Your task to perform on an android device: choose inbox layout in the gmail app Image 0: 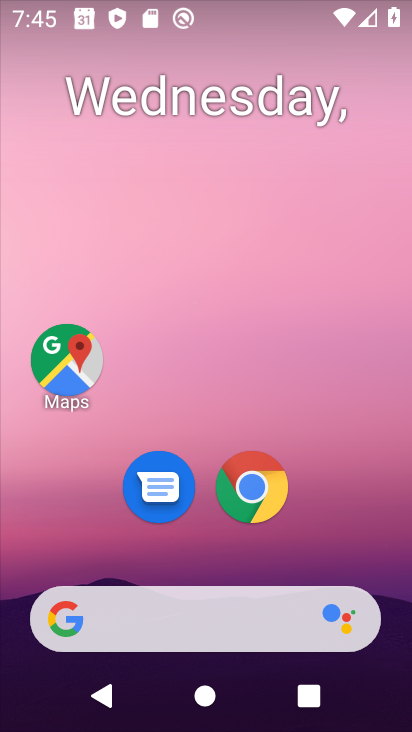
Step 0: drag from (346, 588) to (264, 21)
Your task to perform on an android device: choose inbox layout in the gmail app Image 1: 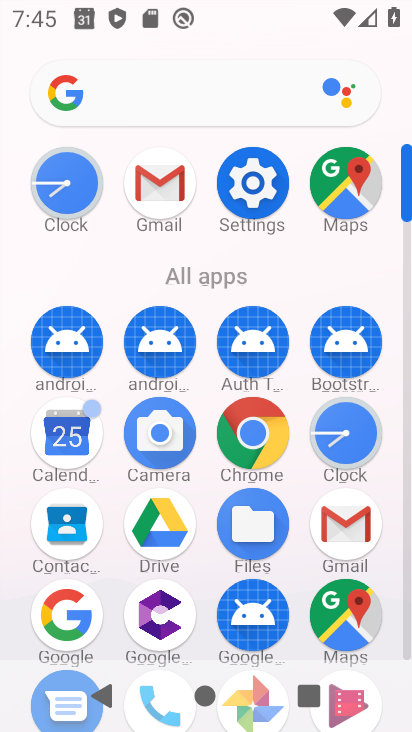
Step 1: click (157, 174)
Your task to perform on an android device: choose inbox layout in the gmail app Image 2: 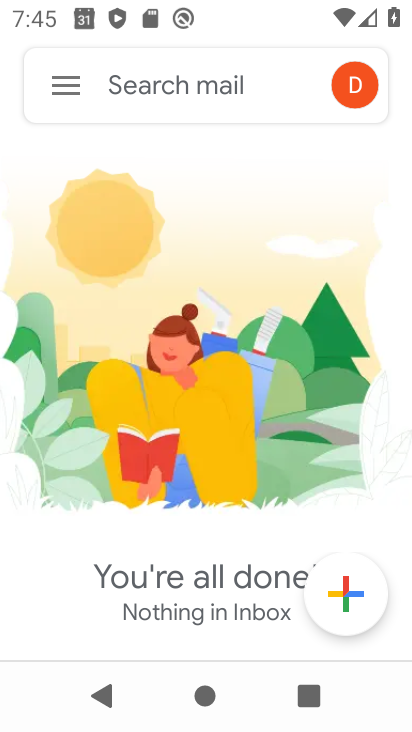
Step 2: click (61, 85)
Your task to perform on an android device: choose inbox layout in the gmail app Image 3: 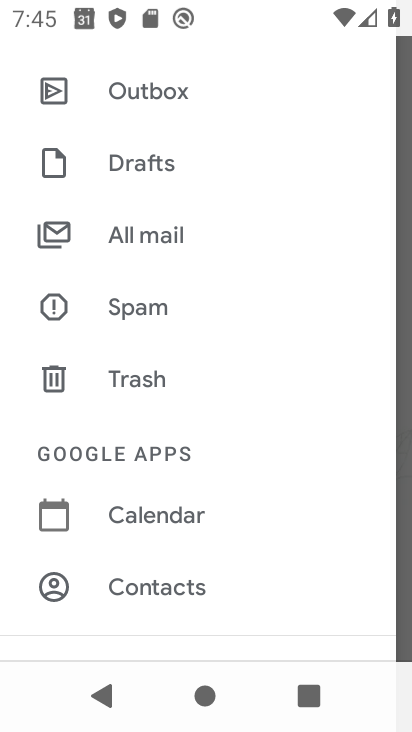
Step 3: drag from (221, 566) to (230, 69)
Your task to perform on an android device: choose inbox layout in the gmail app Image 4: 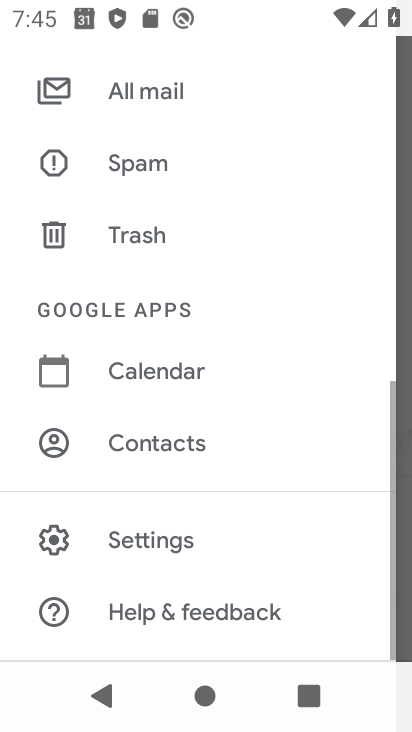
Step 4: click (158, 540)
Your task to perform on an android device: choose inbox layout in the gmail app Image 5: 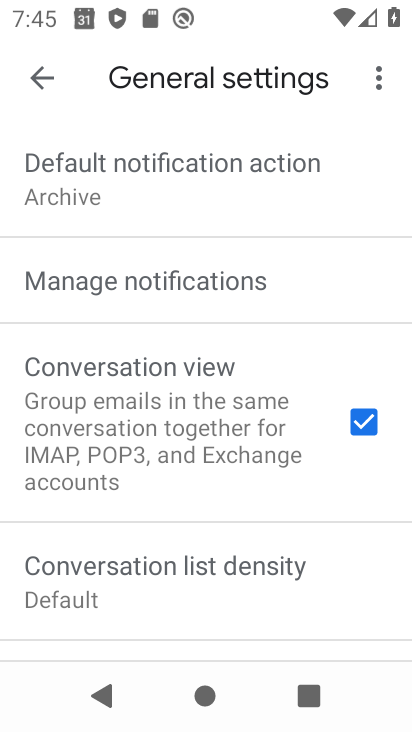
Step 5: click (42, 73)
Your task to perform on an android device: choose inbox layout in the gmail app Image 6: 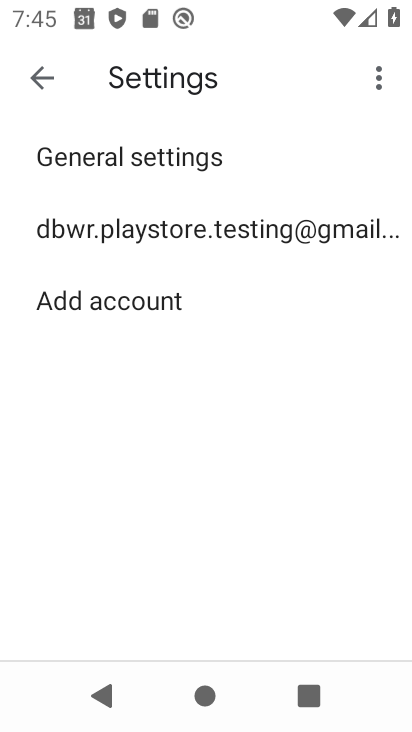
Step 6: click (99, 229)
Your task to perform on an android device: choose inbox layout in the gmail app Image 7: 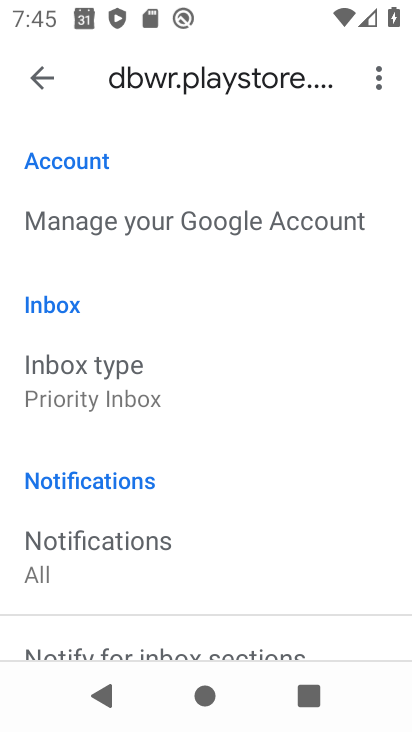
Step 7: click (126, 405)
Your task to perform on an android device: choose inbox layout in the gmail app Image 8: 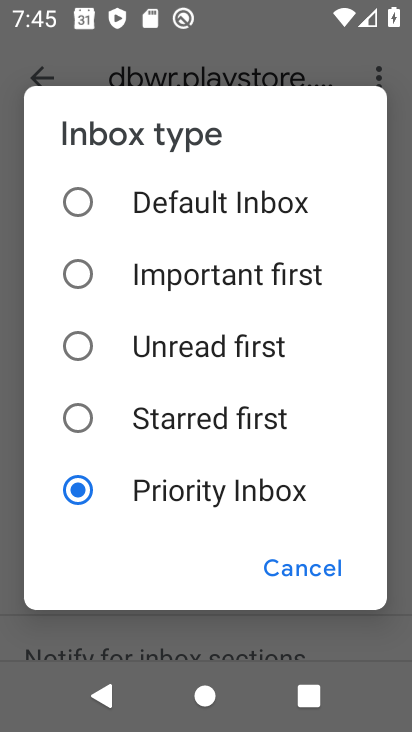
Step 8: click (86, 277)
Your task to perform on an android device: choose inbox layout in the gmail app Image 9: 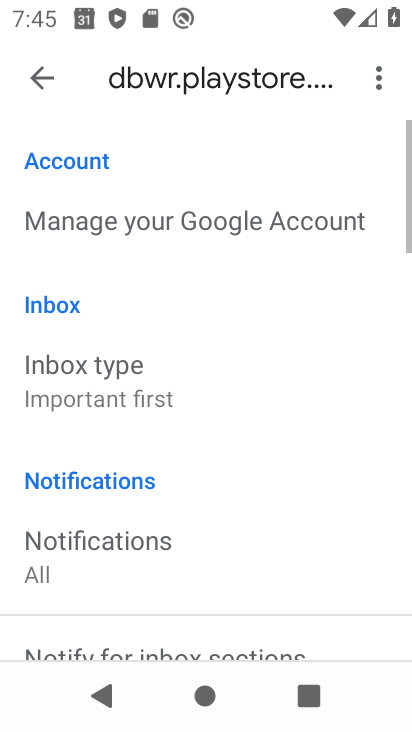
Step 9: task complete